Your task to perform on an android device: Go to sound settings Image 0: 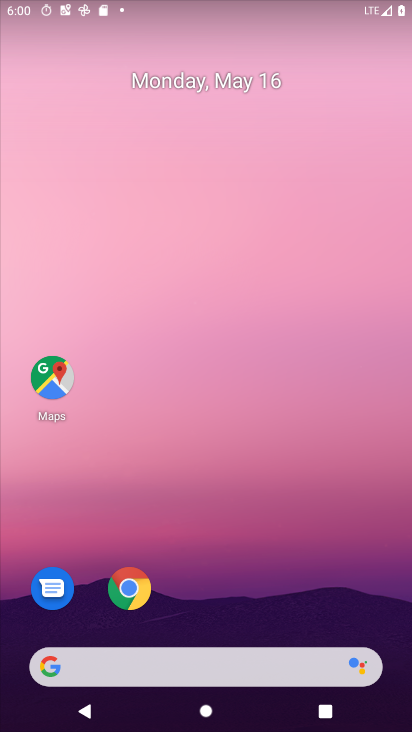
Step 0: drag from (241, 503) to (156, 45)
Your task to perform on an android device: Go to sound settings Image 1: 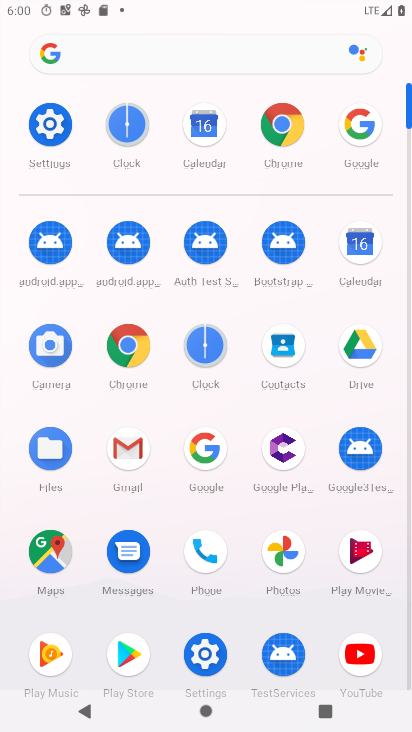
Step 1: click (33, 113)
Your task to perform on an android device: Go to sound settings Image 2: 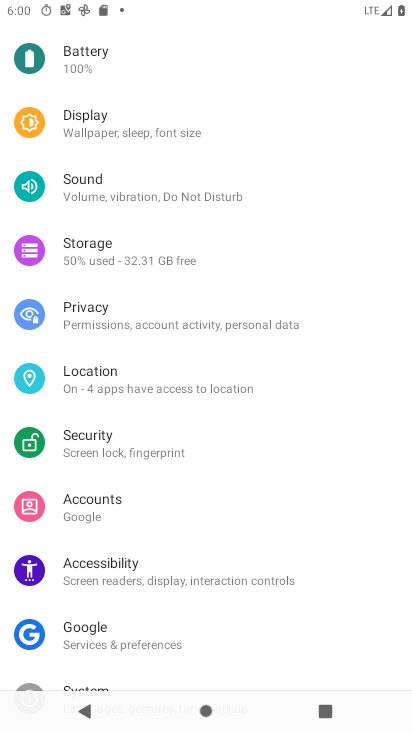
Step 2: click (161, 189)
Your task to perform on an android device: Go to sound settings Image 3: 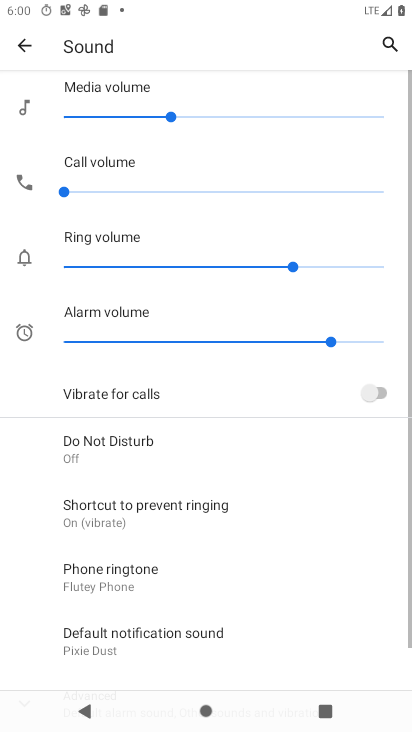
Step 3: task complete